Your task to perform on an android device: What's the weather today? Image 0: 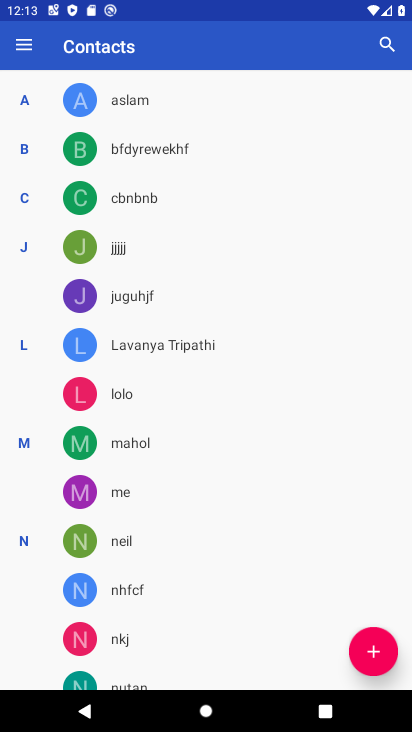
Step 0: press home button
Your task to perform on an android device: What's the weather today? Image 1: 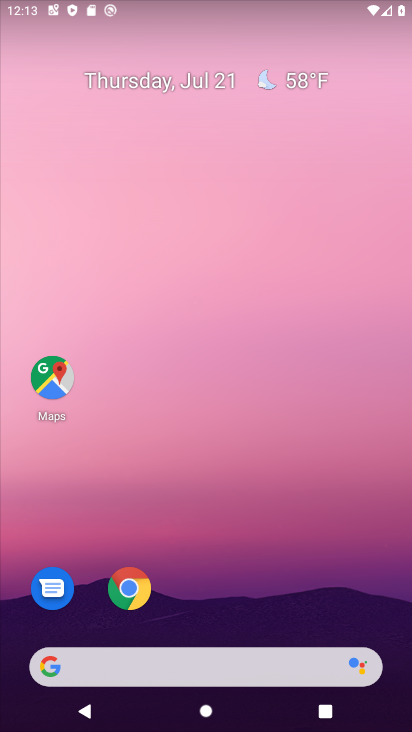
Step 1: click (165, 670)
Your task to perform on an android device: What's the weather today? Image 2: 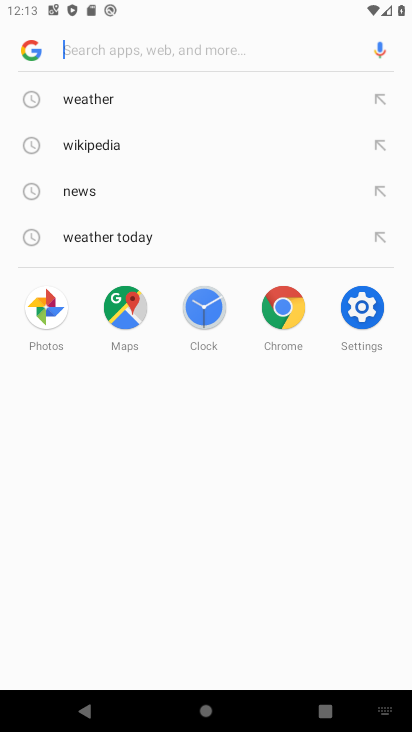
Step 2: click (96, 106)
Your task to perform on an android device: What's the weather today? Image 3: 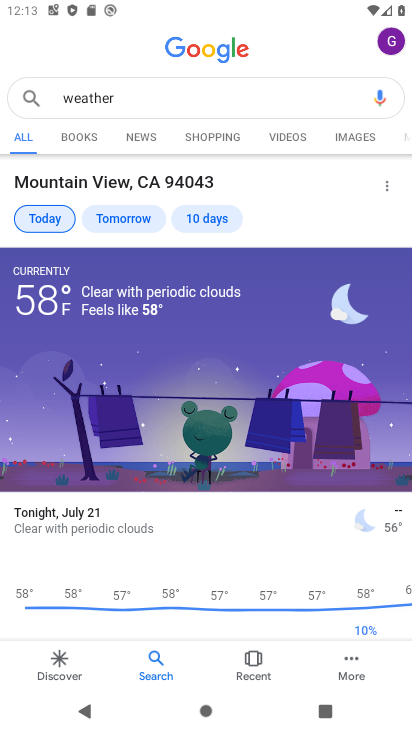
Step 3: task complete